Your task to perform on an android device: Open eBay Image 0: 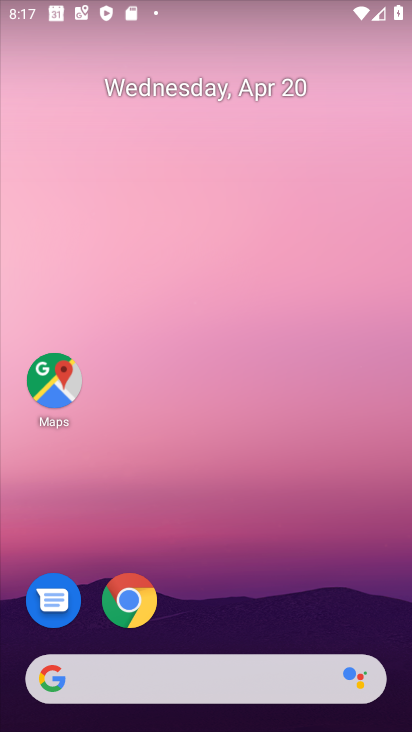
Step 0: click (135, 612)
Your task to perform on an android device: Open eBay Image 1: 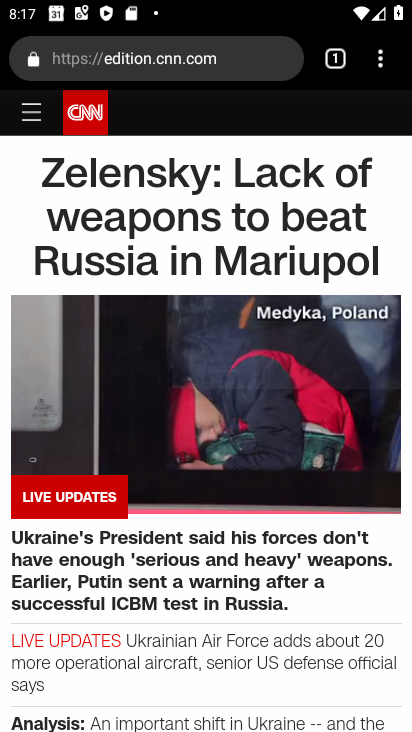
Step 1: click (172, 60)
Your task to perform on an android device: Open eBay Image 2: 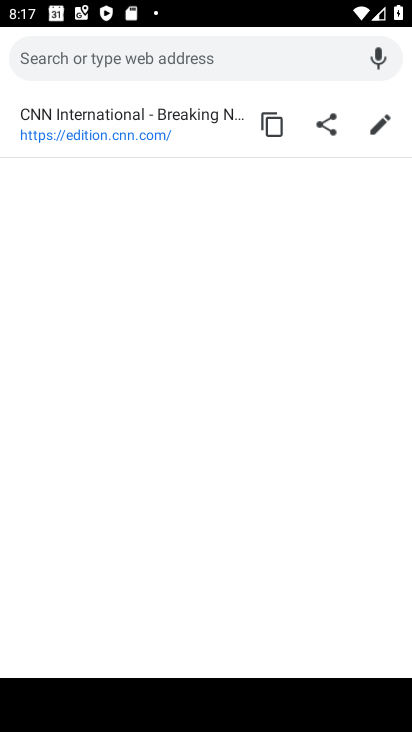
Step 2: type "ebay"
Your task to perform on an android device: Open eBay Image 3: 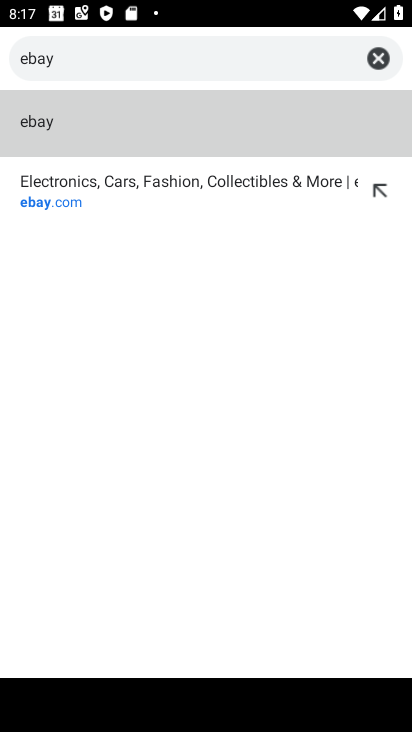
Step 3: click (47, 199)
Your task to perform on an android device: Open eBay Image 4: 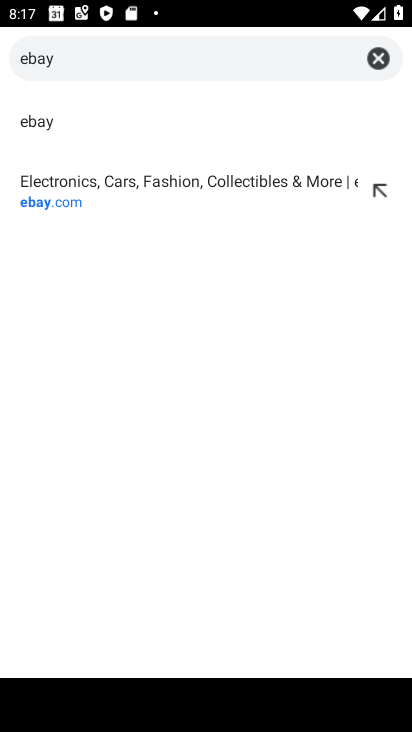
Step 4: click (60, 206)
Your task to perform on an android device: Open eBay Image 5: 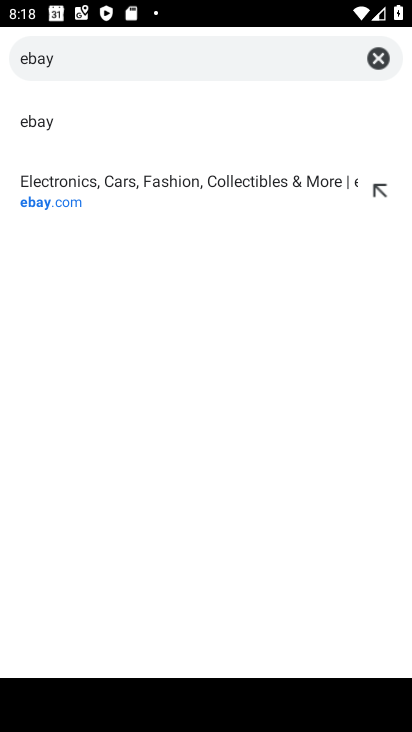
Step 5: click (44, 203)
Your task to perform on an android device: Open eBay Image 6: 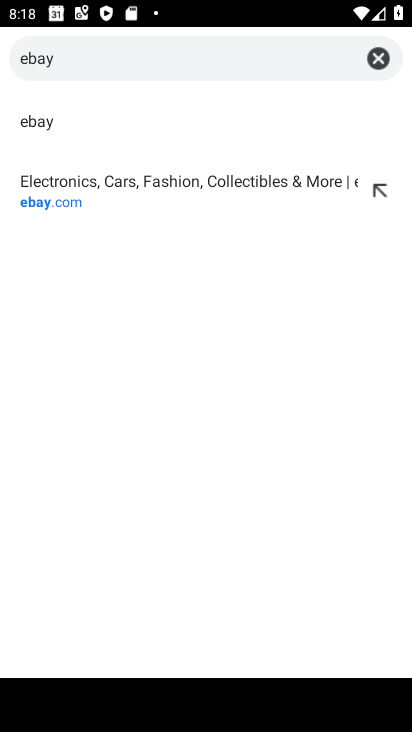
Step 6: click (43, 202)
Your task to perform on an android device: Open eBay Image 7: 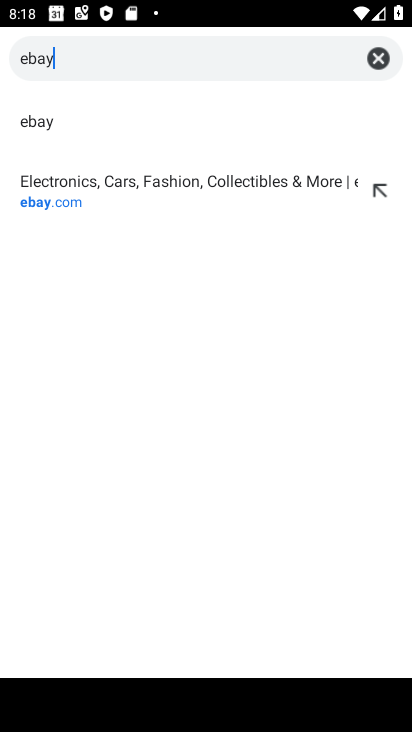
Step 7: click (59, 205)
Your task to perform on an android device: Open eBay Image 8: 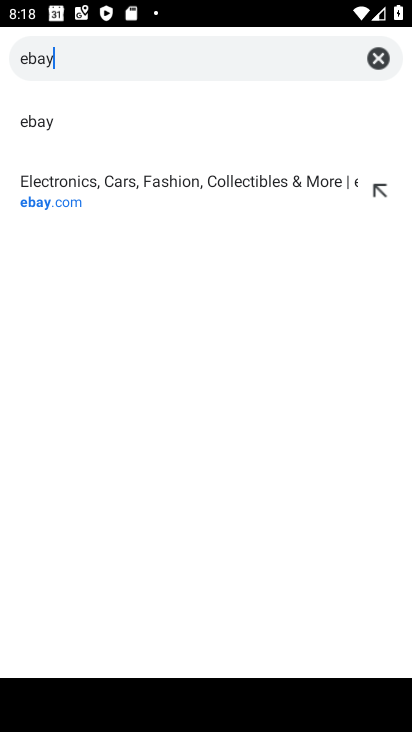
Step 8: click (51, 200)
Your task to perform on an android device: Open eBay Image 9: 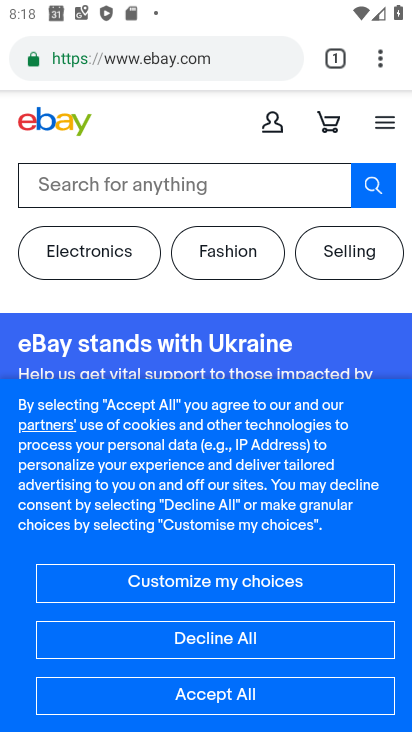
Step 9: task complete